Your task to perform on an android device: toggle data saver in the chrome app Image 0: 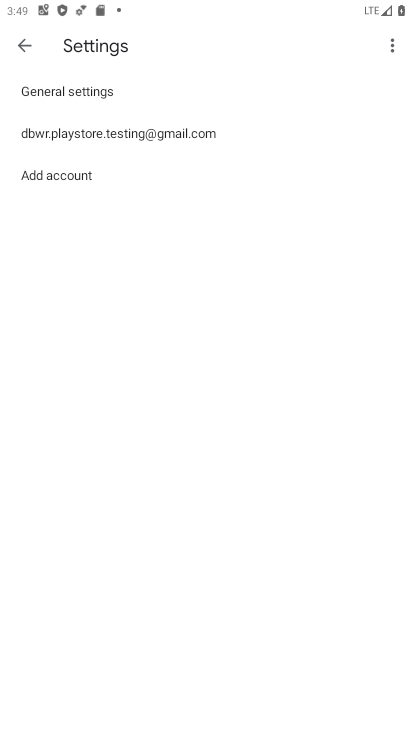
Step 0: press back button
Your task to perform on an android device: toggle data saver in the chrome app Image 1: 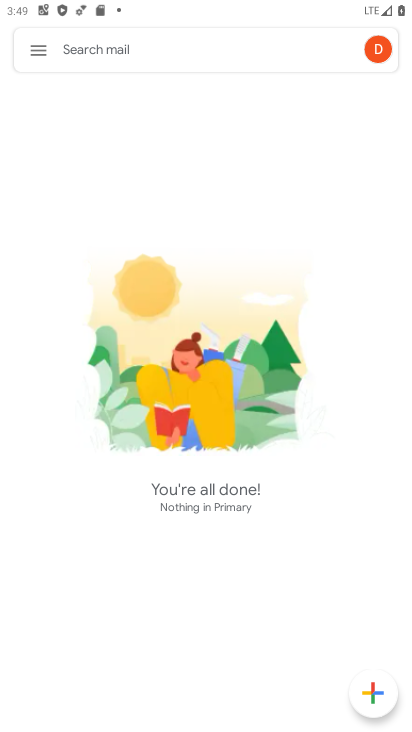
Step 1: press home button
Your task to perform on an android device: toggle data saver in the chrome app Image 2: 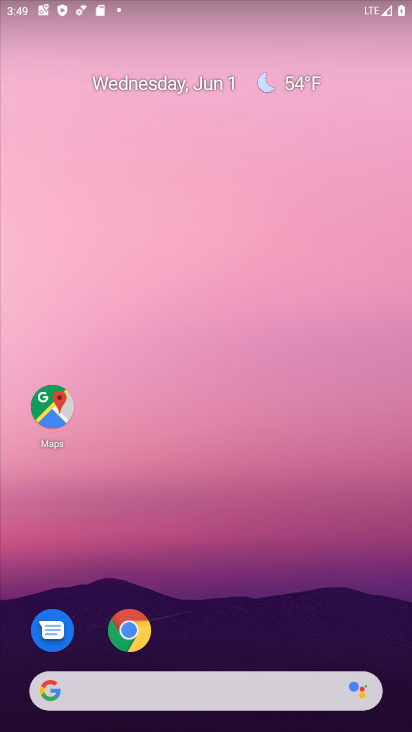
Step 2: drag from (252, 587) to (228, 21)
Your task to perform on an android device: toggle data saver in the chrome app Image 3: 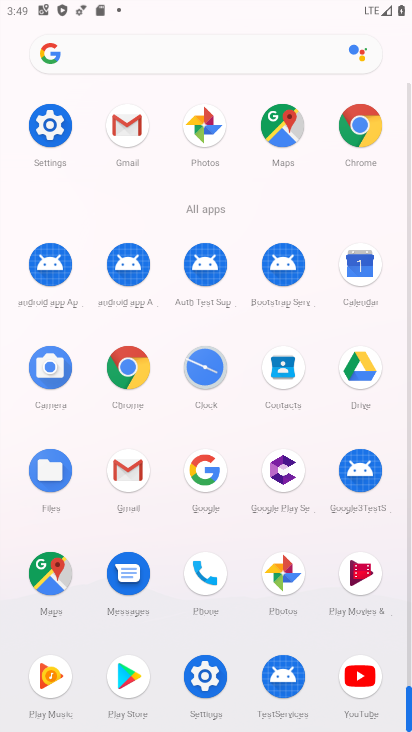
Step 3: drag from (6, 617) to (17, 189)
Your task to perform on an android device: toggle data saver in the chrome app Image 4: 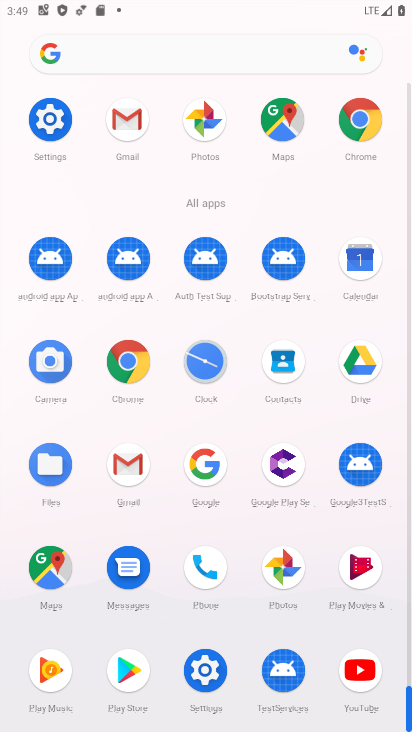
Step 4: click (131, 360)
Your task to perform on an android device: toggle data saver in the chrome app Image 5: 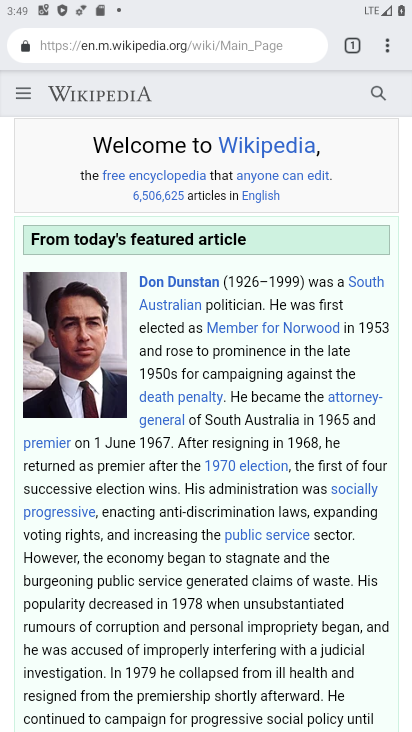
Step 5: drag from (386, 45) to (236, 549)
Your task to perform on an android device: toggle data saver in the chrome app Image 6: 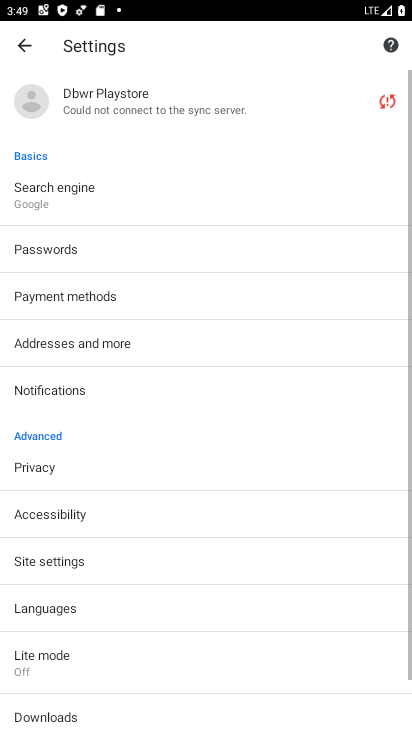
Step 6: drag from (230, 595) to (211, 211)
Your task to perform on an android device: toggle data saver in the chrome app Image 7: 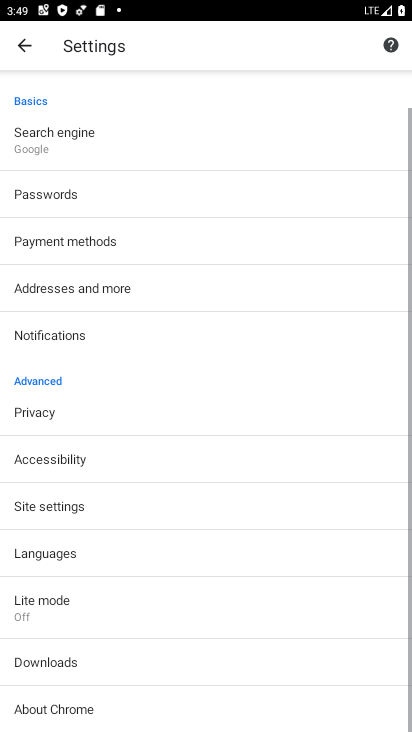
Step 7: click (86, 597)
Your task to perform on an android device: toggle data saver in the chrome app Image 8: 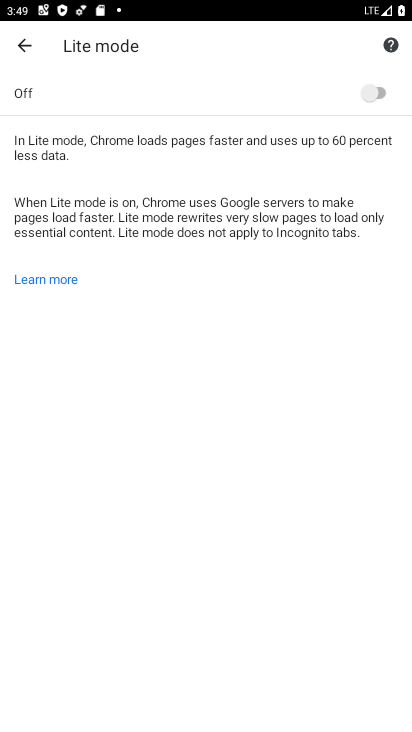
Step 8: click (359, 90)
Your task to perform on an android device: toggle data saver in the chrome app Image 9: 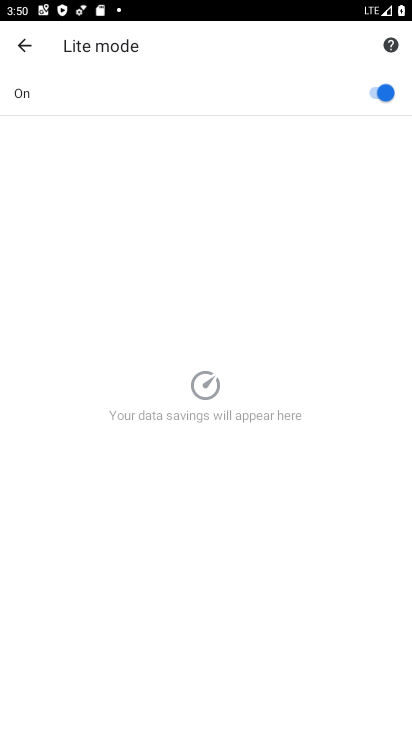
Step 9: task complete